Your task to perform on an android device: Open network settings Image 0: 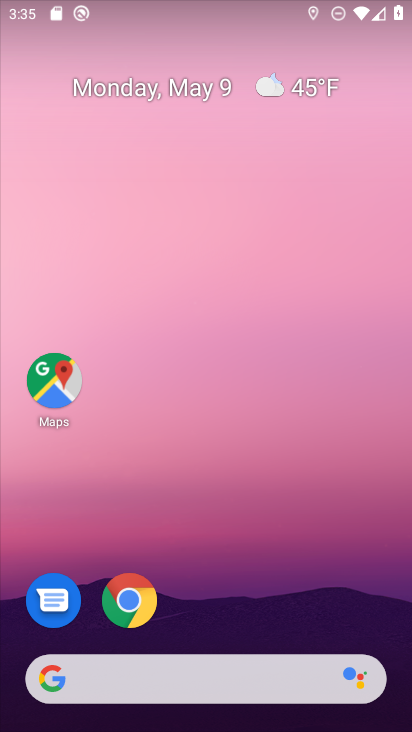
Step 0: drag from (202, 618) to (263, 188)
Your task to perform on an android device: Open network settings Image 1: 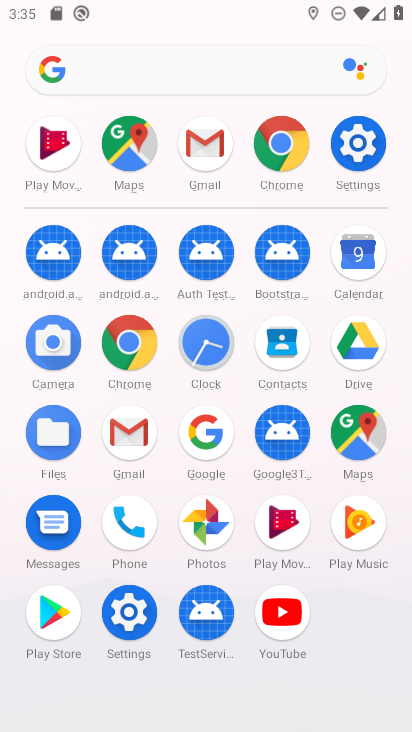
Step 1: click (364, 145)
Your task to perform on an android device: Open network settings Image 2: 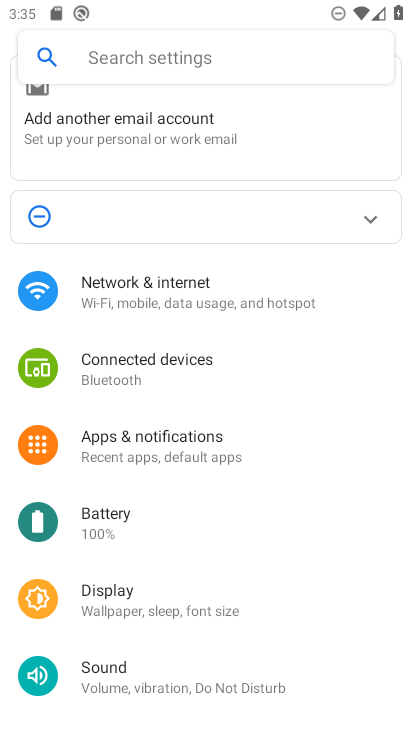
Step 2: click (172, 297)
Your task to perform on an android device: Open network settings Image 3: 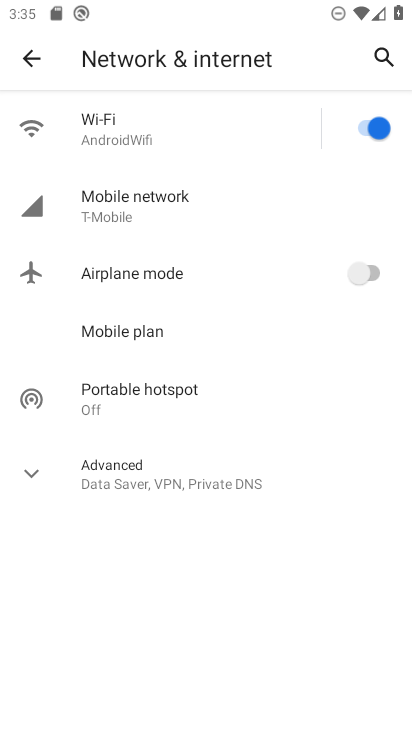
Step 3: task complete